Your task to perform on an android device: toggle translation in the chrome app Image 0: 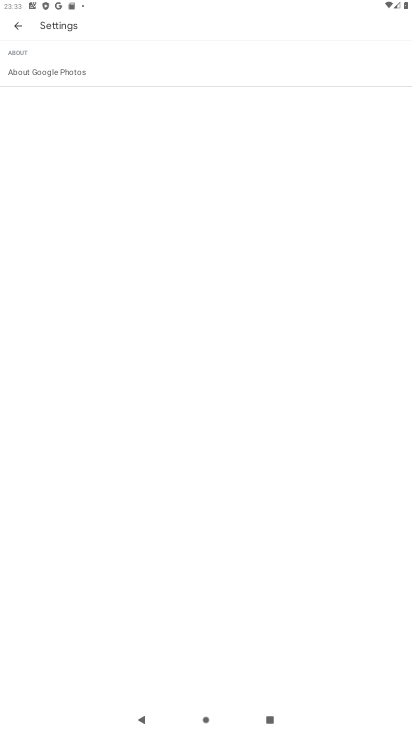
Step 0: press back button
Your task to perform on an android device: toggle translation in the chrome app Image 1: 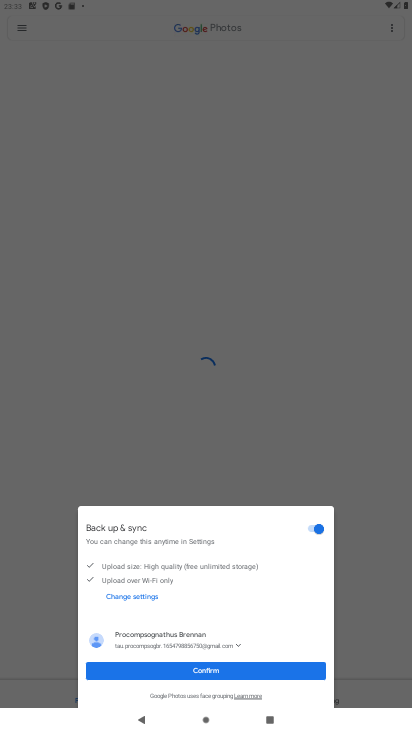
Step 1: press home button
Your task to perform on an android device: toggle translation in the chrome app Image 2: 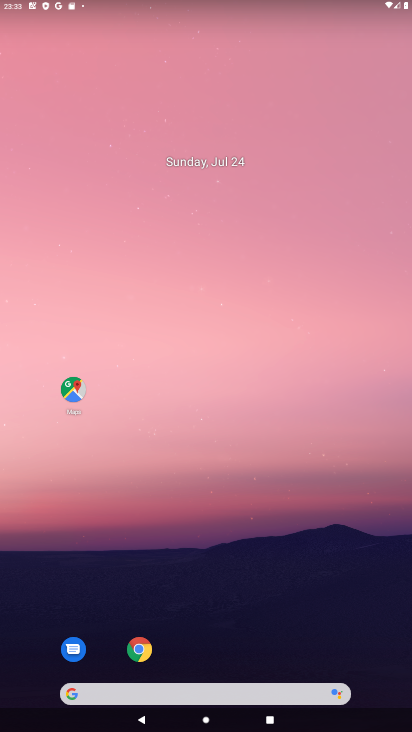
Step 2: click (138, 643)
Your task to perform on an android device: toggle translation in the chrome app Image 3: 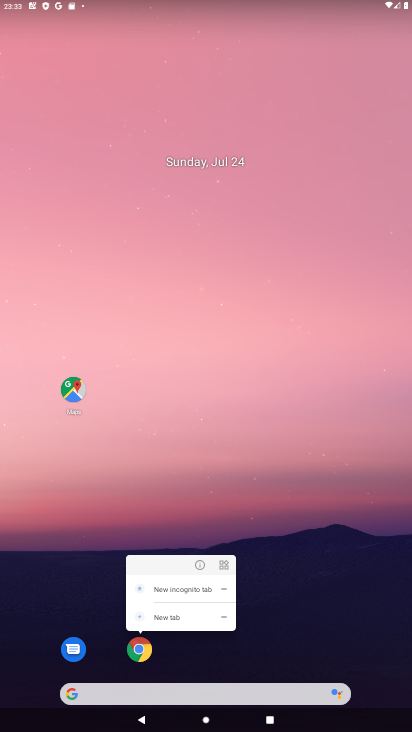
Step 3: click (136, 645)
Your task to perform on an android device: toggle translation in the chrome app Image 4: 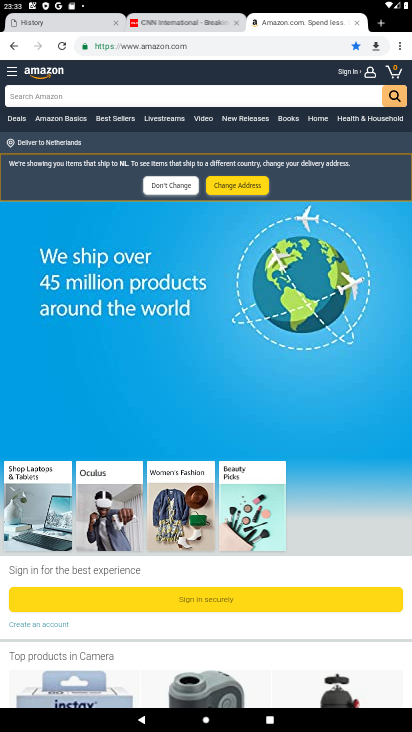
Step 4: click (398, 43)
Your task to perform on an android device: toggle translation in the chrome app Image 5: 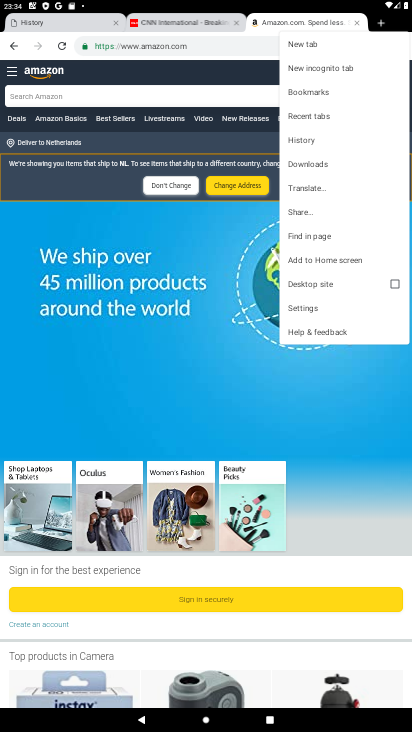
Step 5: click (326, 307)
Your task to perform on an android device: toggle translation in the chrome app Image 6: 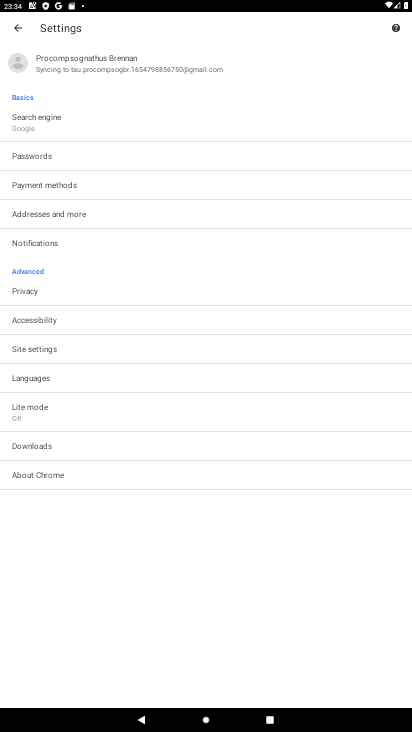
Step 6: click (67, 378)
Your task to perform on an android device: toggle translation in the chrome app Image 7: 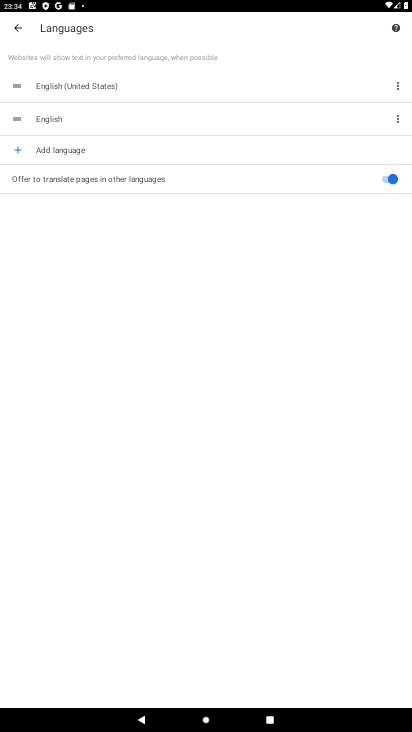
Step 7: click (386, 176)
Your task to perform on an android device: toggle translation in the chrome app Image 8: 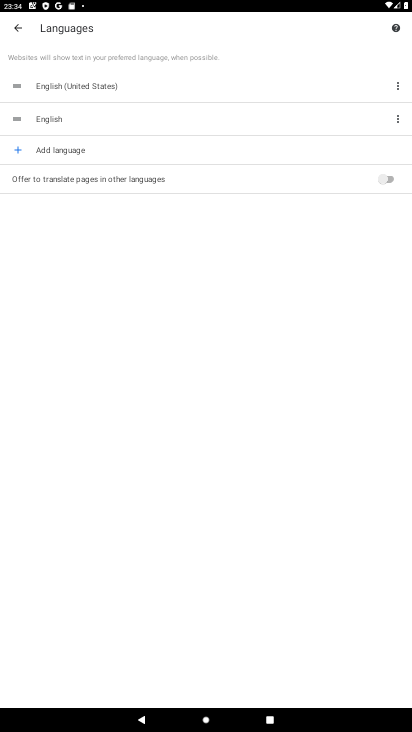
Step 8: task complete